Your task to perform on an android device: Open sound settings Image 0: 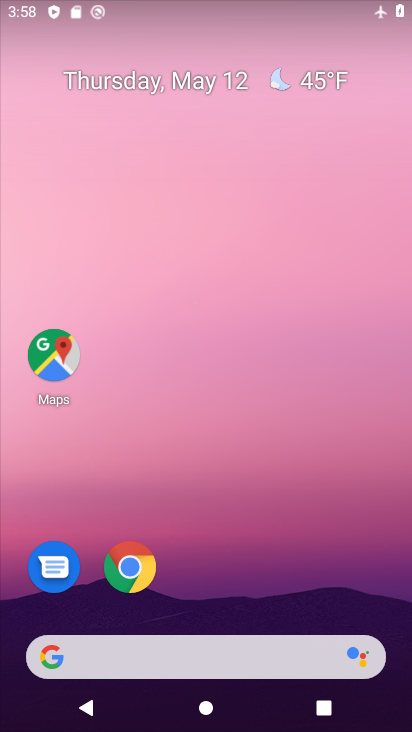
Step 0: drag from (205, 590) to (205, 96)
Your task to perform on an android device: Open sound settings Image 1: 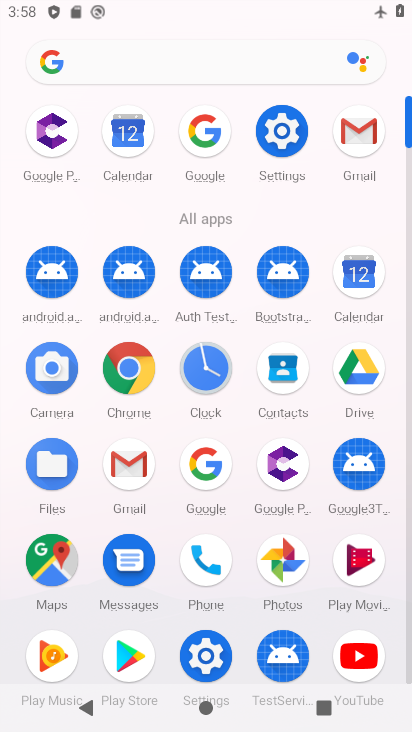
Step 1: click (267, 156)
Your task to perform on an android device: Open sound settings Image 2: 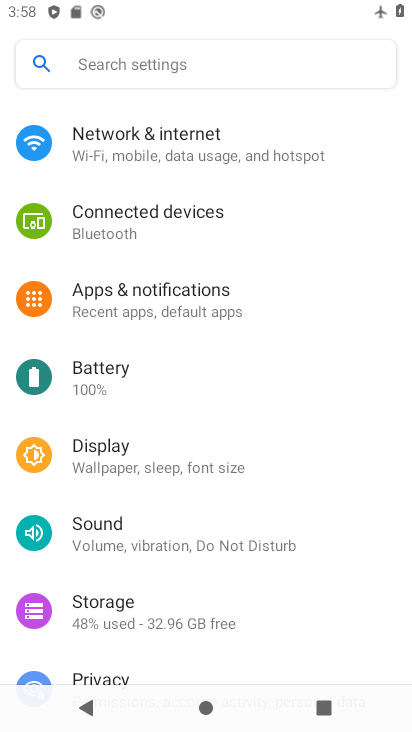
Step 2: click (169, 534)
Your task to perform on an android device: Open sound settings Image 3: 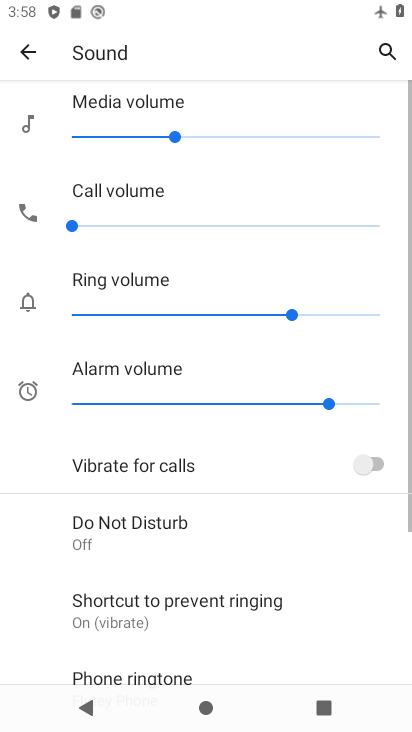
Step 3: task complete